Your task to perform on an android device: uninstall "VLC for Android" Image 0: 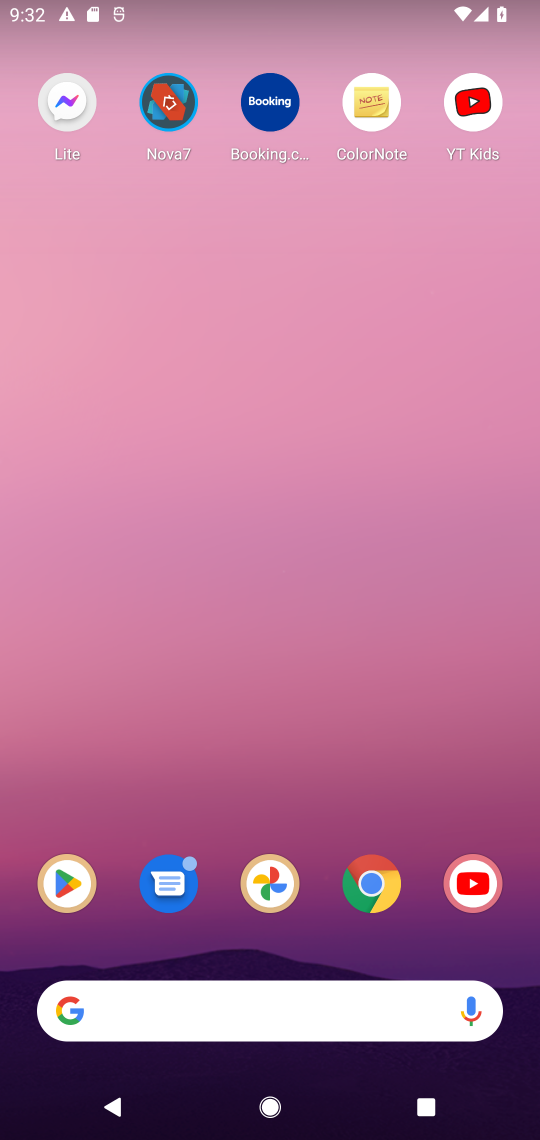
Step 0: click (79, 899)
Your task to perform on an android device: uninstall "VLC for Android" Image 1: 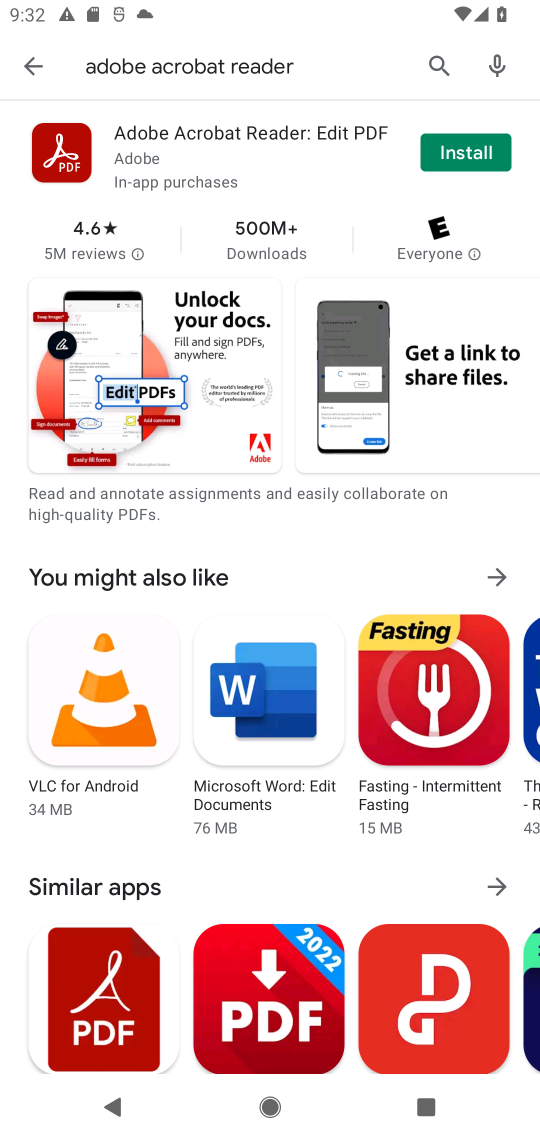
Step 1: click (191, 69)
Your task to perform on an android device: uninstall "VLC for Android" Image 2: 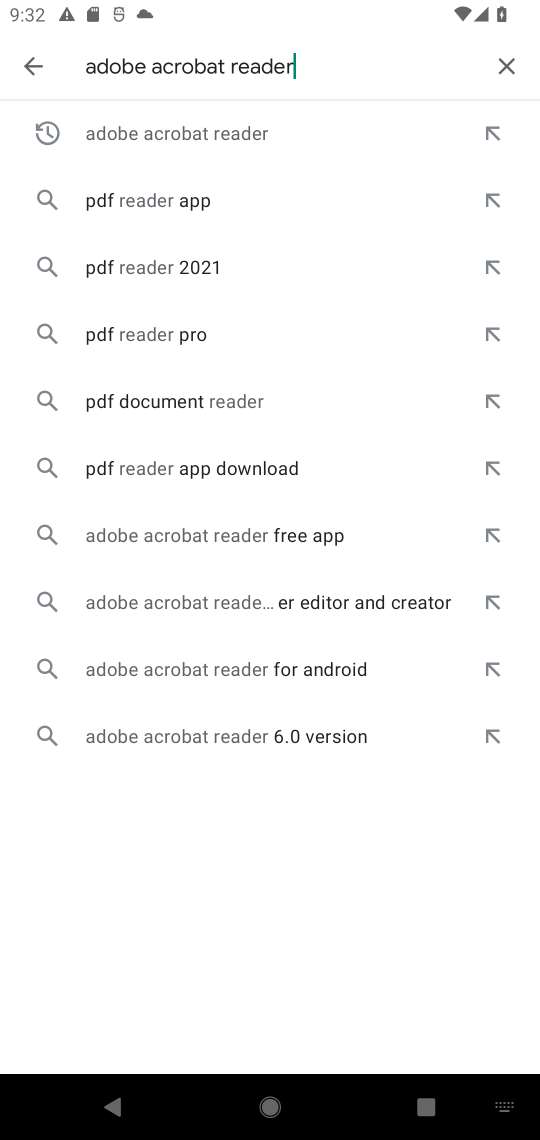
Step 2: click (506, 61)
Your task to perform on an android device: uninstall "VLC for Android" Image 3: 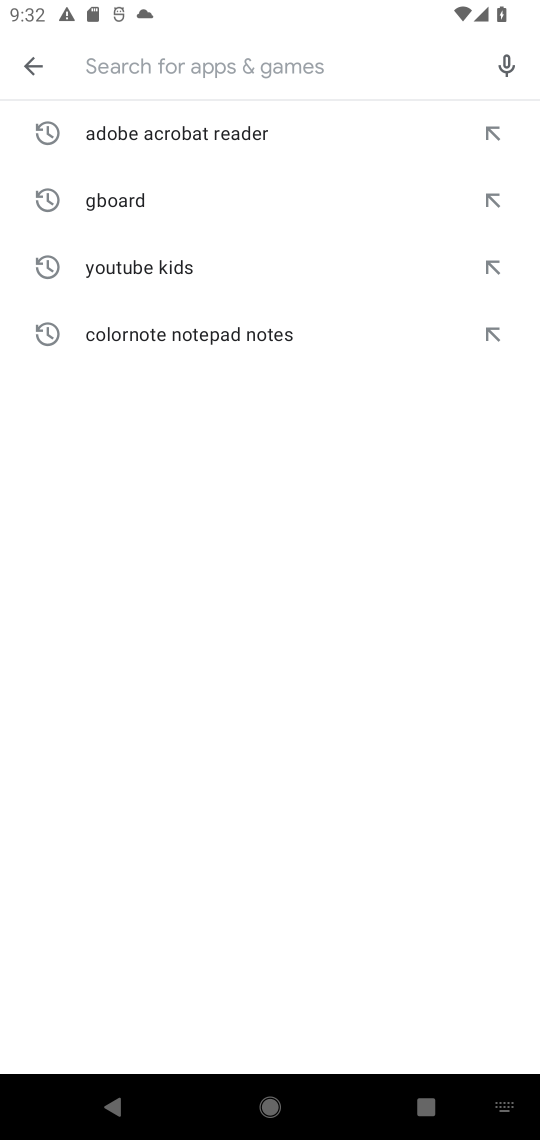
Step 3: type "Vlc "
Your task to perform on an android device: uninstall "VLC for Android" Image 4: 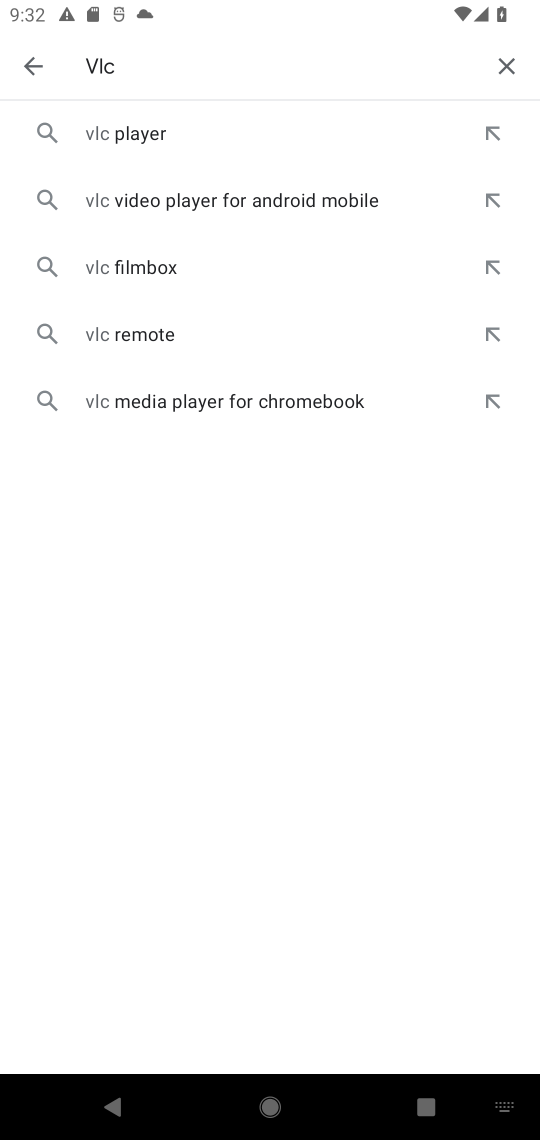
Step 4: click (194, 134)
Your task to perform on an android device: uninstall "VLC for Android" Image 5: 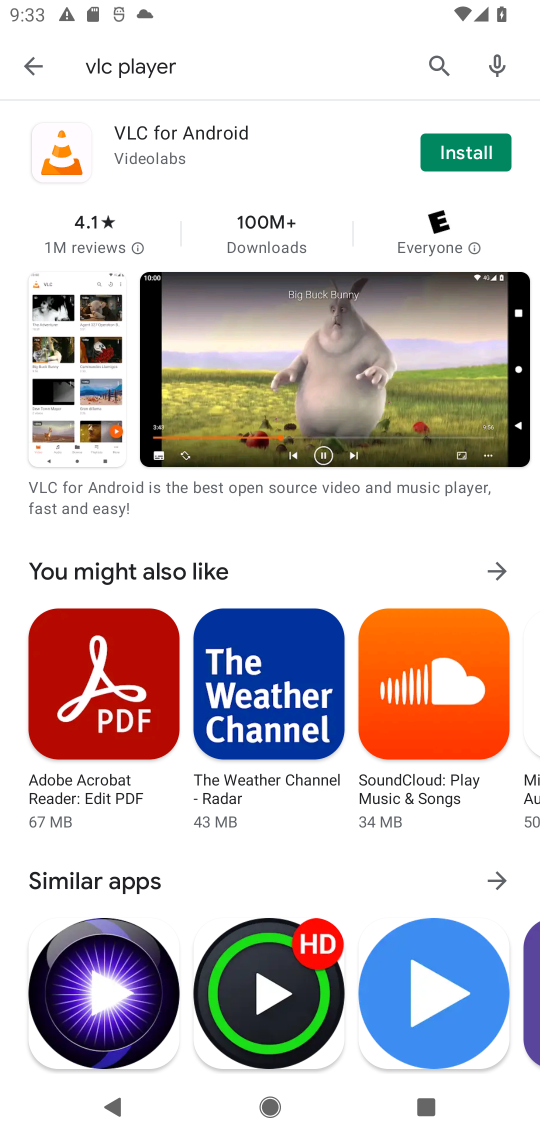
Step 5: click (483, 146)
Your task to perform on an android device: uninstall "VLC for Android" Image 6: 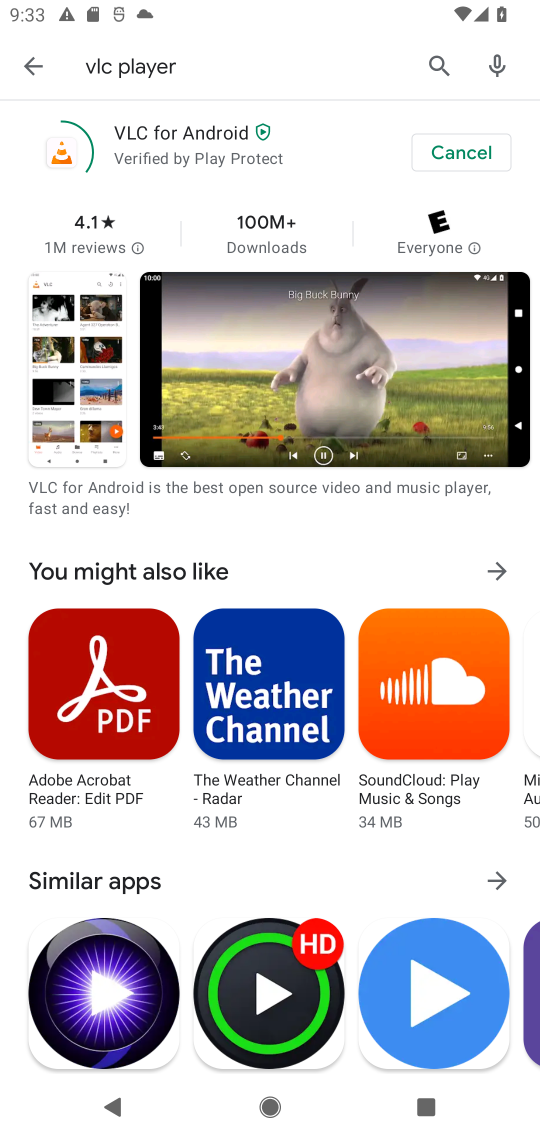
Step 6: click (484, 151)
Your task to perform on an android device: uninstall "VLC for Android" Image 7: 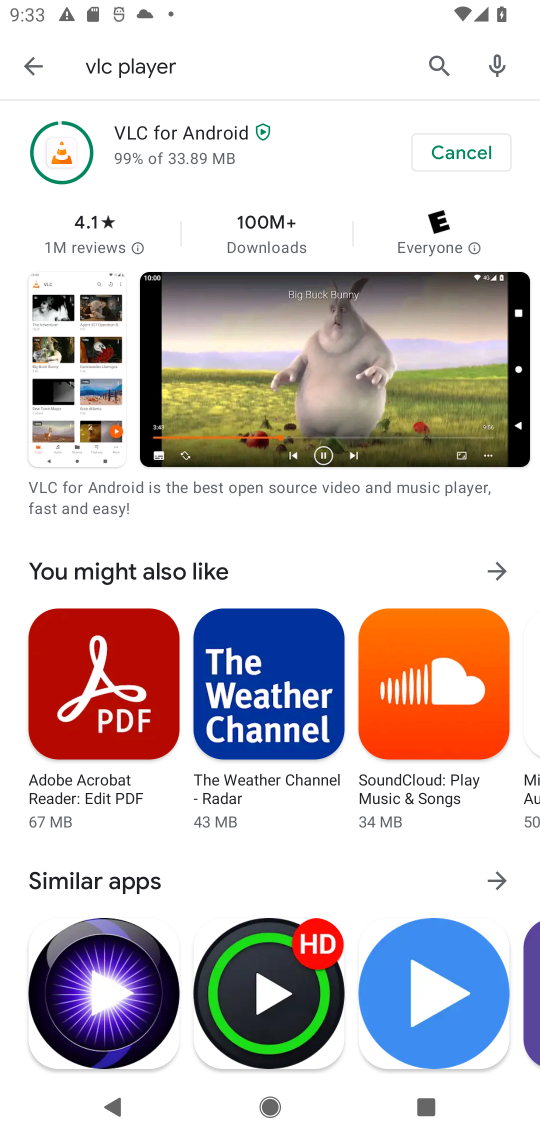
Step 7: click (451, 150)
Your task to perform on an android device: uninstall "VLC for Android" Image 8: 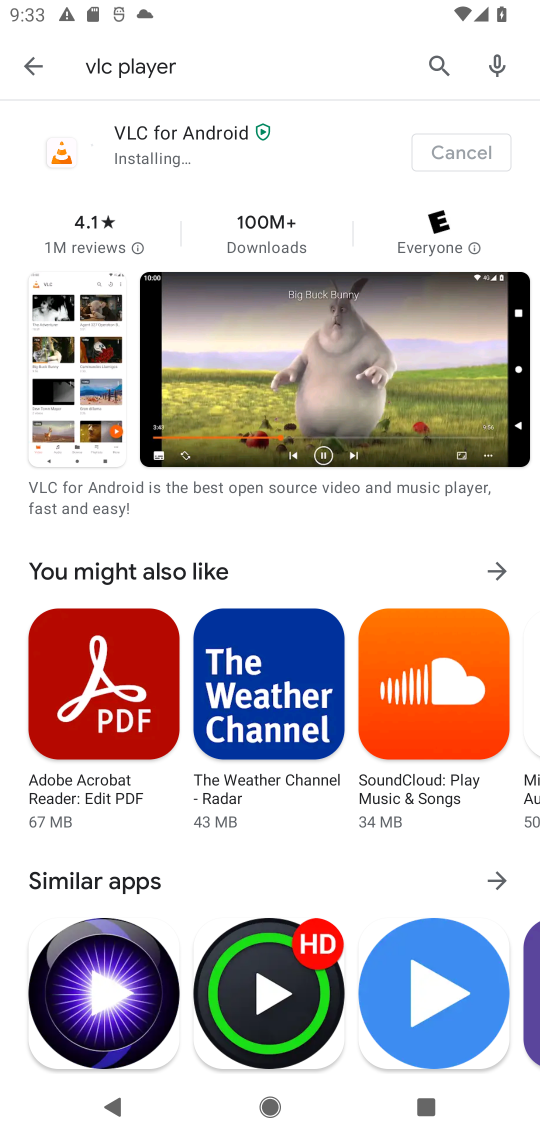
Step 8: click (451, 152)
Your task to perform on an android device: uninstall "VLC for Android" Image 9: 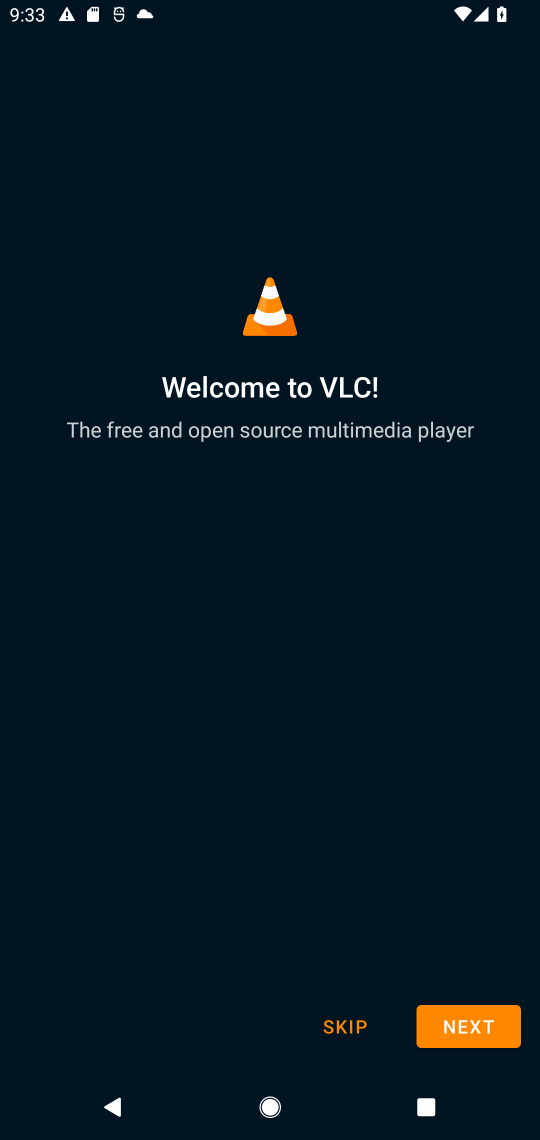
Step 9: task complete